Your task to perform on an android device: find which apps use the phone's location Image 0: 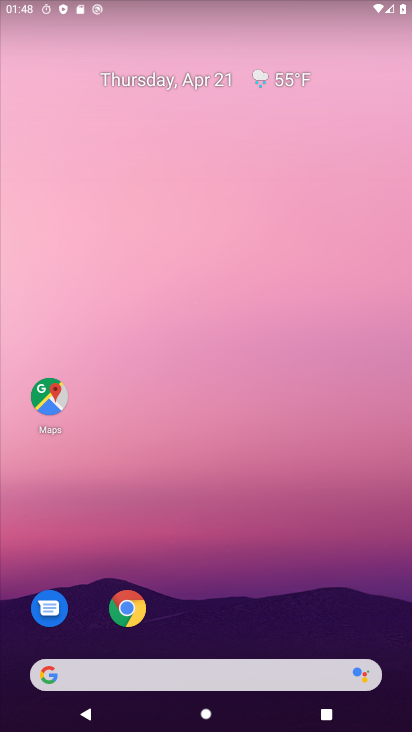
Step 0: drag from (191, 594) to (126, 208)
Your task to perform on an android device: find which apps use the phone's location Image 1: 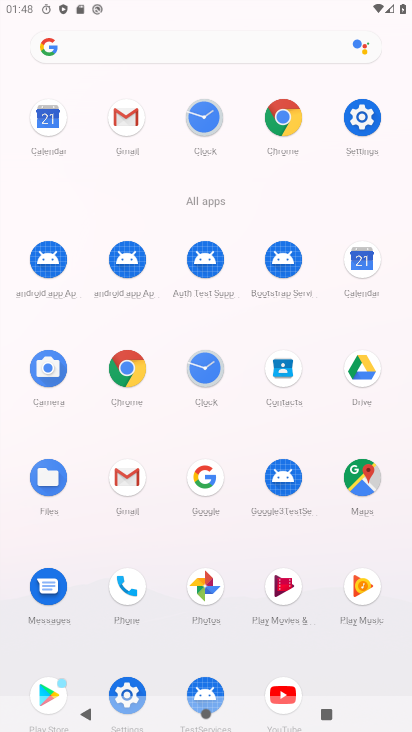
Step 1: click (365, 119)
Your task to perform on an android device: find which apps use the phone's location Image 2: 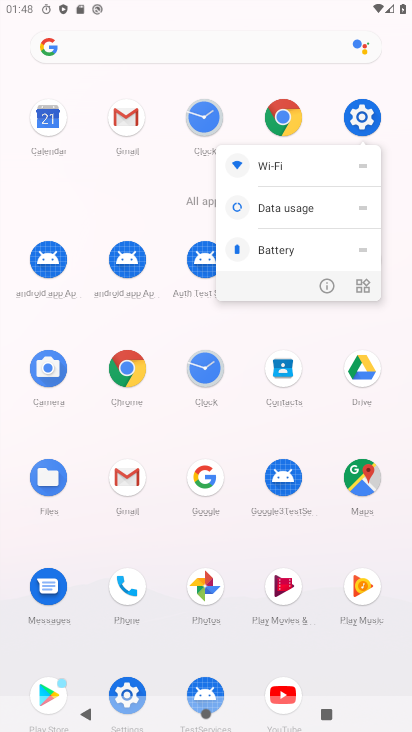
Step 2: click (365, 119)
Your task to perform on an android device: find which apps use the phone's location Image 3: 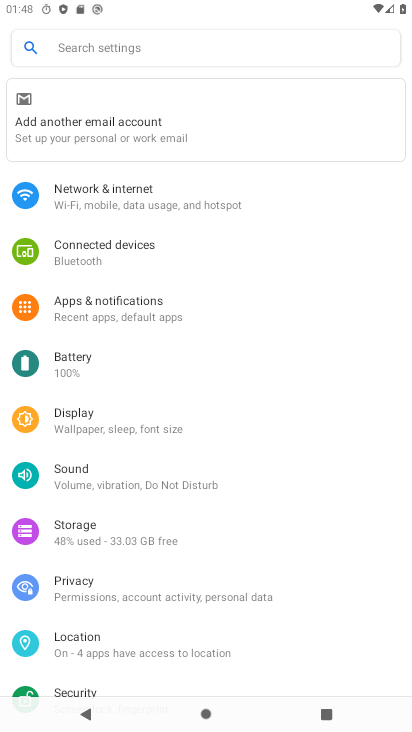
Step 3: click (74, 637)
Your task to perform on an android device: find which apps use the phone's location Image 4: 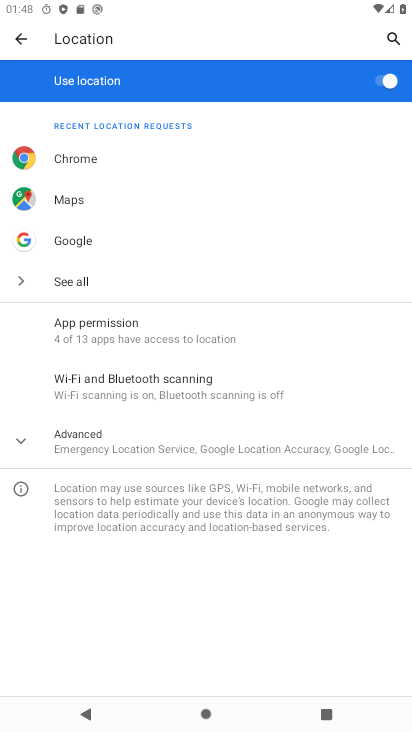
Step 4: click (70, 319)
Your task to perform on an android device: find which apps use the phone's location Image 5: 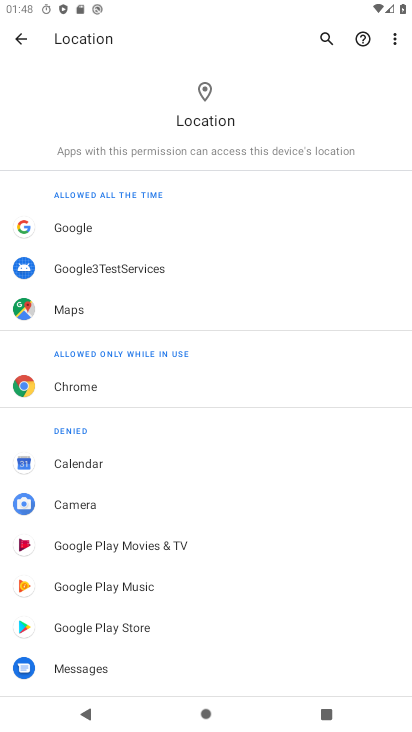
Step 5: task complete